Your task to perform on an android device: turn off location history Image 0: 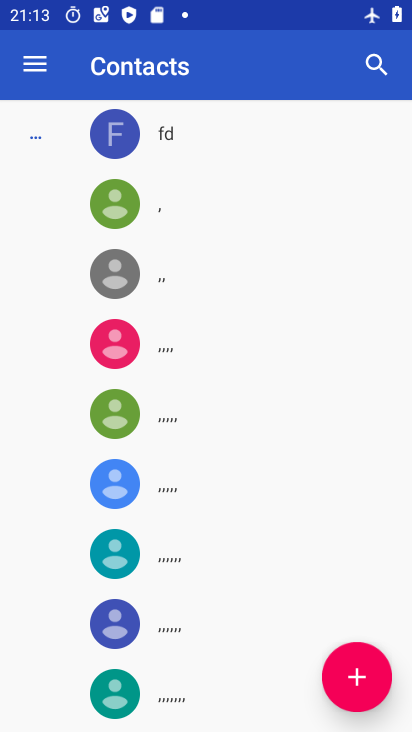
Step 0: press back button
Your task to perform on an android device: turn off location history Image 1: 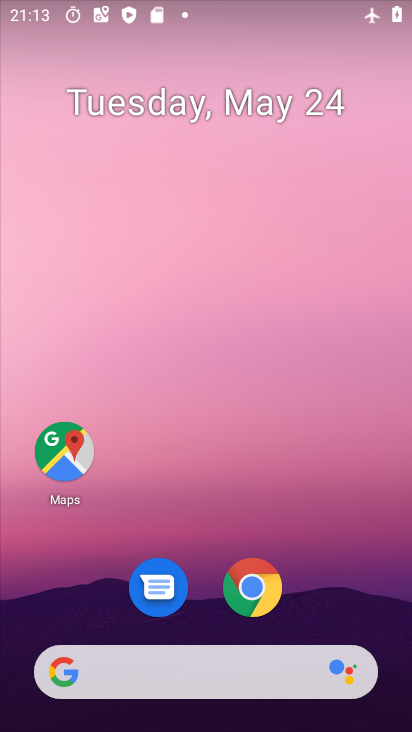
Step 1: drag from (329, 572) to (235, 39)
Your task to perform on an android device: turn off location history Image 2: 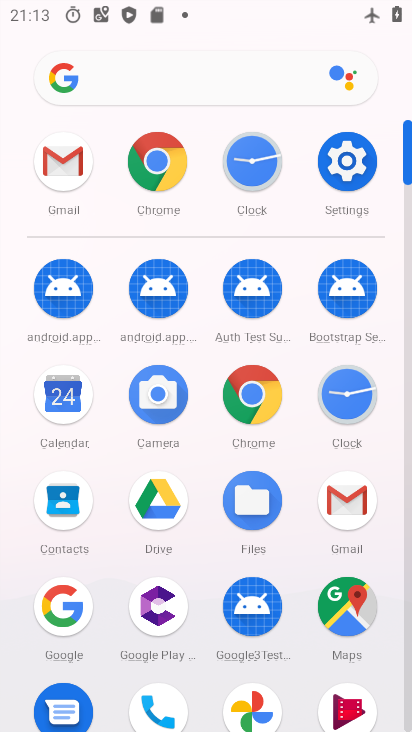
Step 2: click (343, 158)
Your task to perform on an android device: turn off location history Image 3: 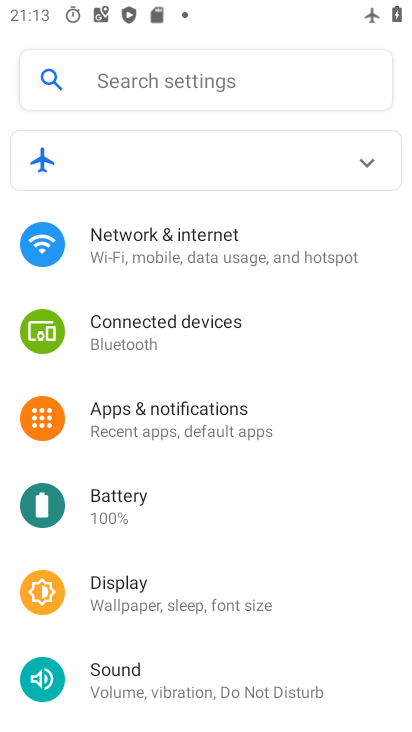
Step 3: drag from (268, 535) to (277, 208)
Your task to perform on an android device: turn off location history Image 4: 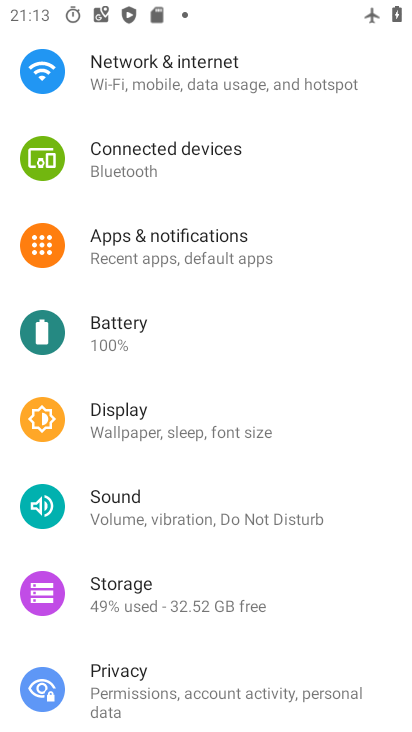
Step 4: drag from (213, 566) to (218, 204)
Your task to perform on an android device: turn off location history Image 5: 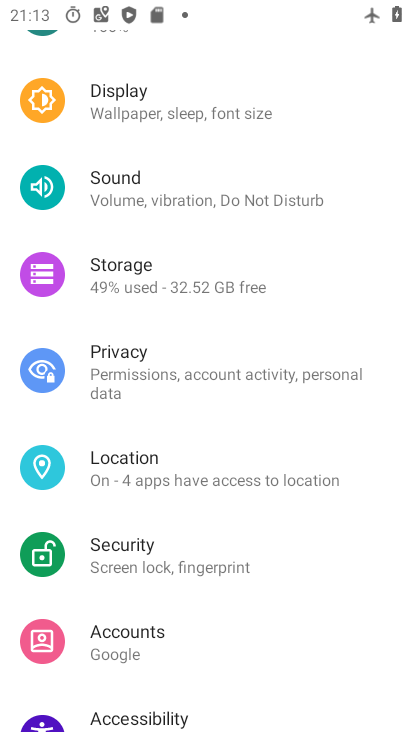
Step 5: click (152, 473)
Your task to perform on an android device: turn off location history Image 6: 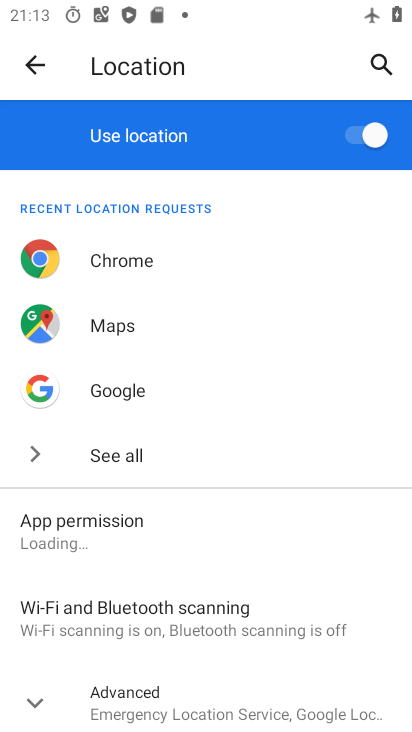
Step 6: drag from (232, 543) to (261, 267)
Your task to perform on an android device: turn off location history Image 7: 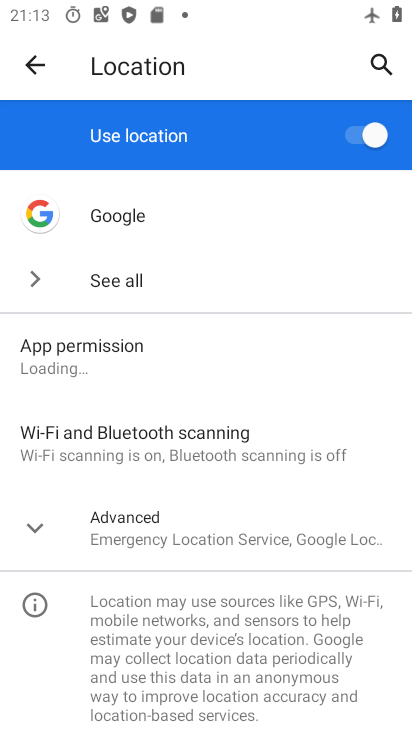
Step 7: click (32, 518)
Your task to perform on an android device: turn off location history Image 8: 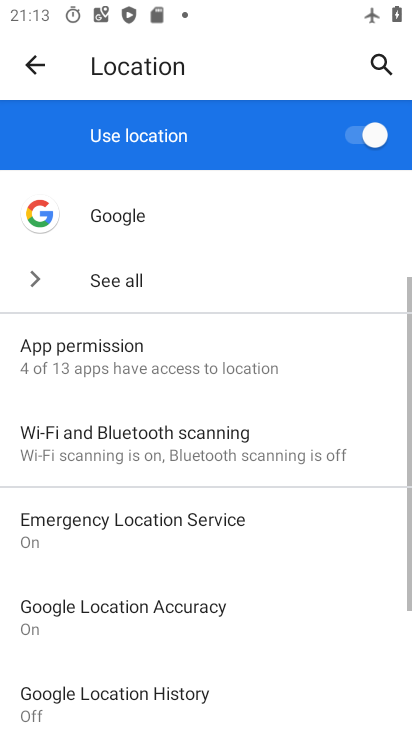
Step 8: drag from (268, 615) to (283, 242)
Your task to perform on an android device: turn off location history Image 9: 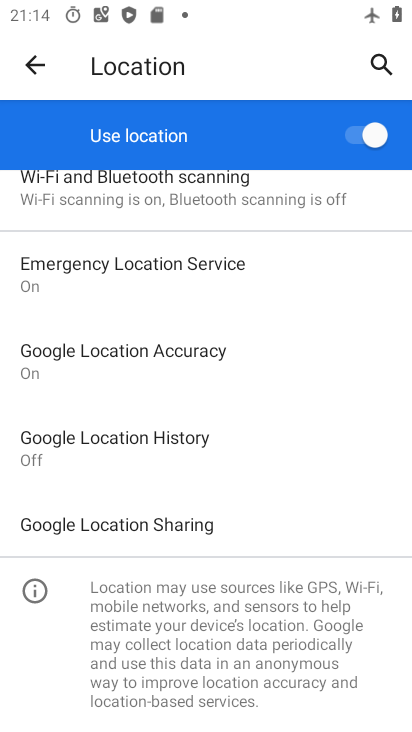
Step 9: click (187, 439)
Your task to perform on an android device: turn off location history Image 10: 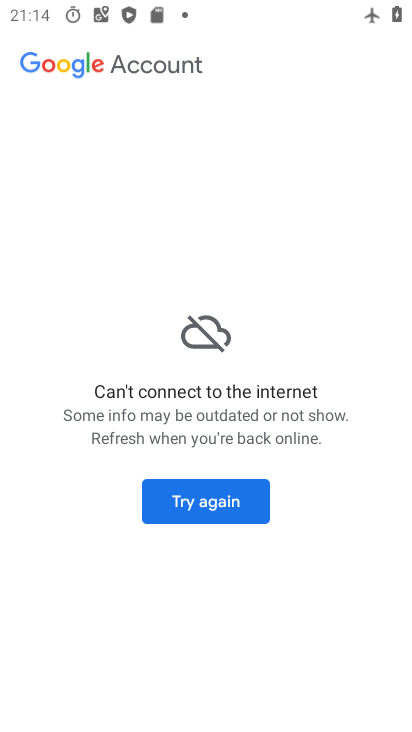
Step 10: drag from (294, 5) to (324, 361)
Your task to perform on an android device: turn off location history Image 11: 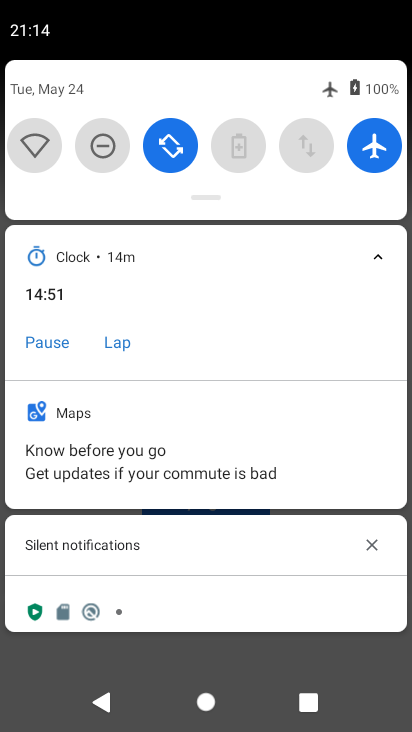
Step 11: click (27, 137)
Your task to perform on an android device: turn off location history Image 12: 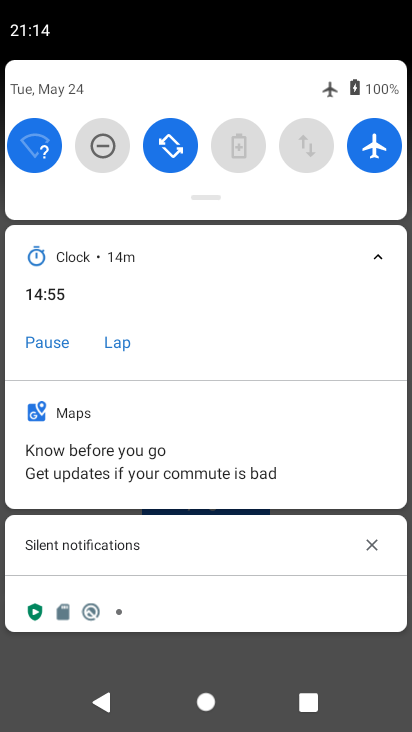
Step 12: drag from (38, 667) to (92, 252)
Your task to perform on an android device: turn off location history Image 13: 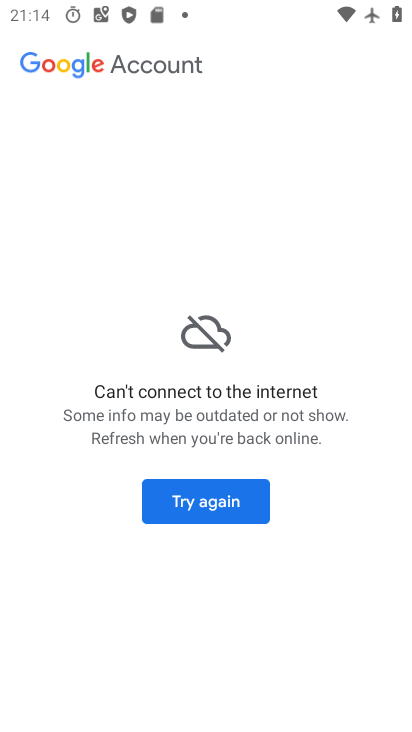
Step 13: click (217, 505)
Your task to perform on an android device: turn off location history Image 14: 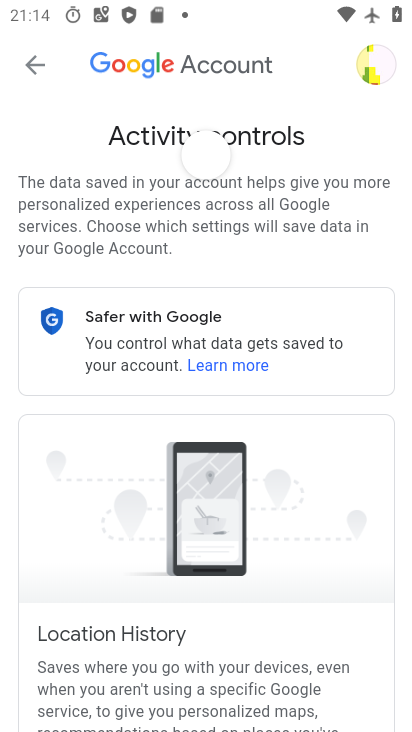
Step 14: task complete